Your task to perform on an android device: Search for razer blackwidow on newegg.com, select the first entry, add it to the cart, then select checkout. Image 0: 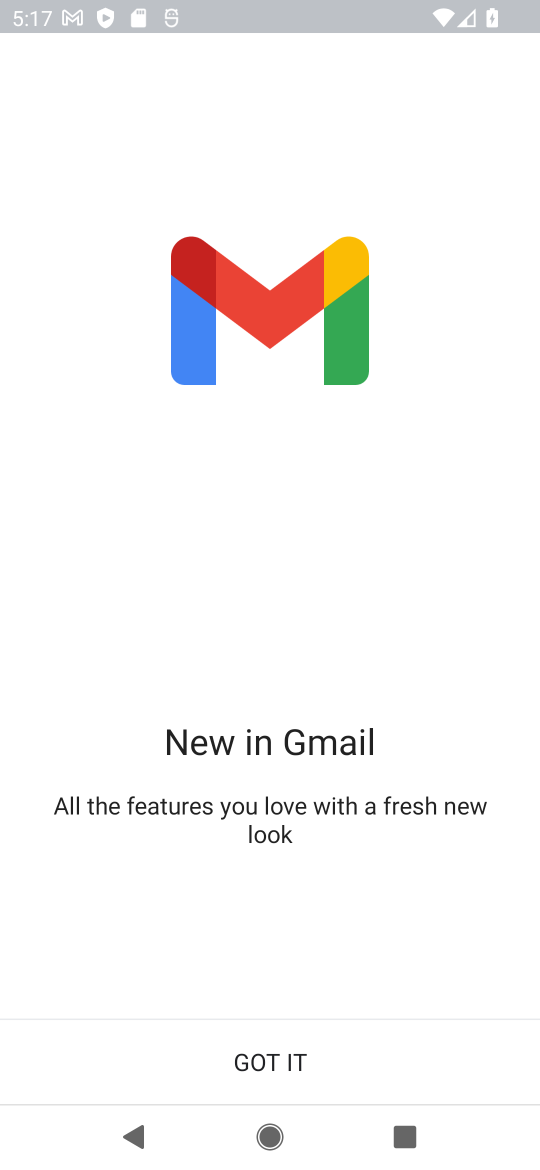
Step 0: press home button
Your task to perform on an android device: Search for razer blackwidow on newegg.com, select the first entry, add it to the cart, then select checkout. Image 1: 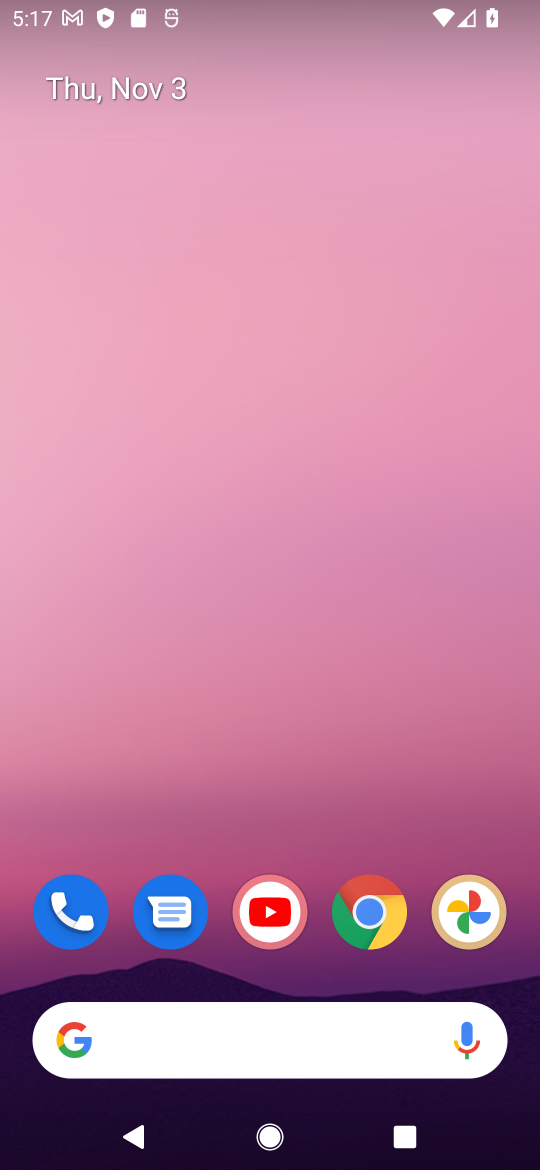
Step 1: click (370, 897)
Your task to perform on an android device: Search for razer blackwidow on newegg.com, select the first entry, add it to the cart, then select checkout. Image 2: 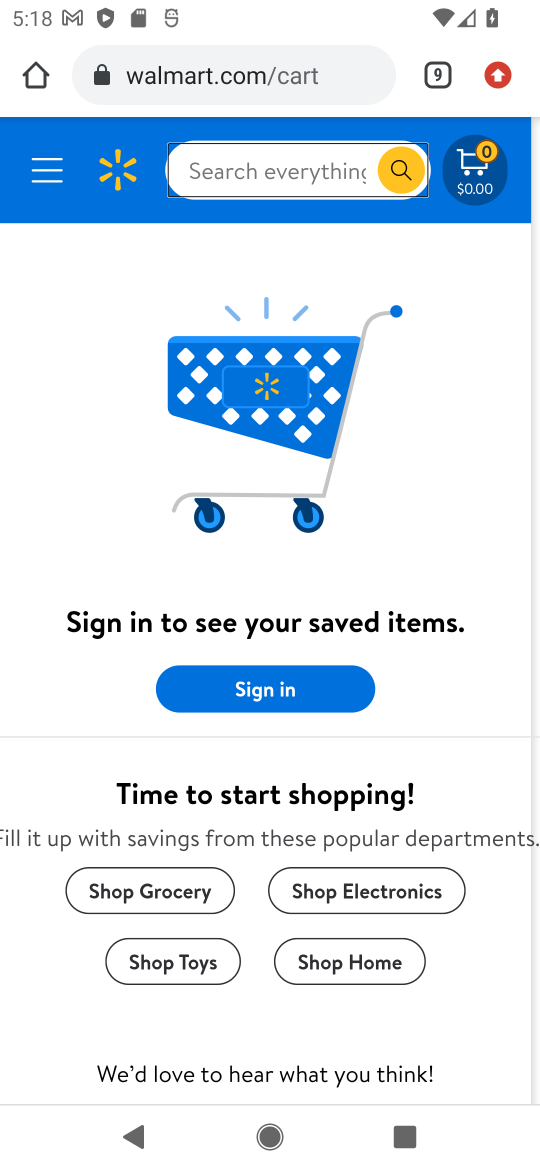
Step 2: click (436, 80)
Your task to perform on an android device: Search for razer blackwidow on newegg.com, select the first entry, add it to the cart, then select checkout. Image 3: 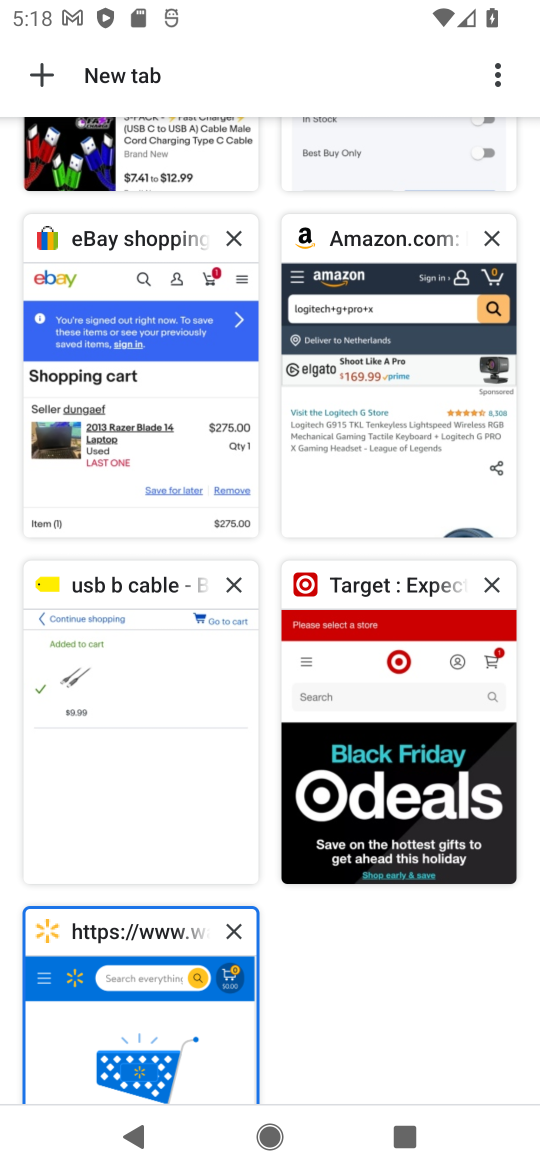
Step 3: drag from (342, 228) to (352, 1076)
Your task to perform on an android device: Search for razer blackwidow on newegg.com, select the first entry, add it to the cart, then select checkout. Image 4: 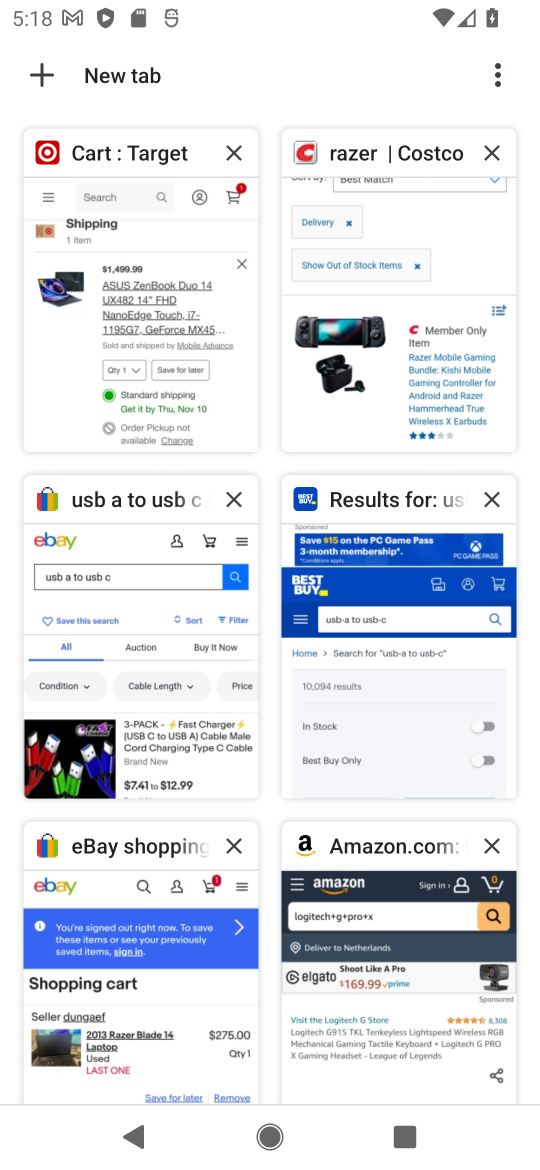
Step 4: drag from (297, 561) to (297, 1159)
Your task to perform on an android device: Search for razer blackwidow on newegg.com, select the first entry, add it to the cart, then select checkout. Image 5: 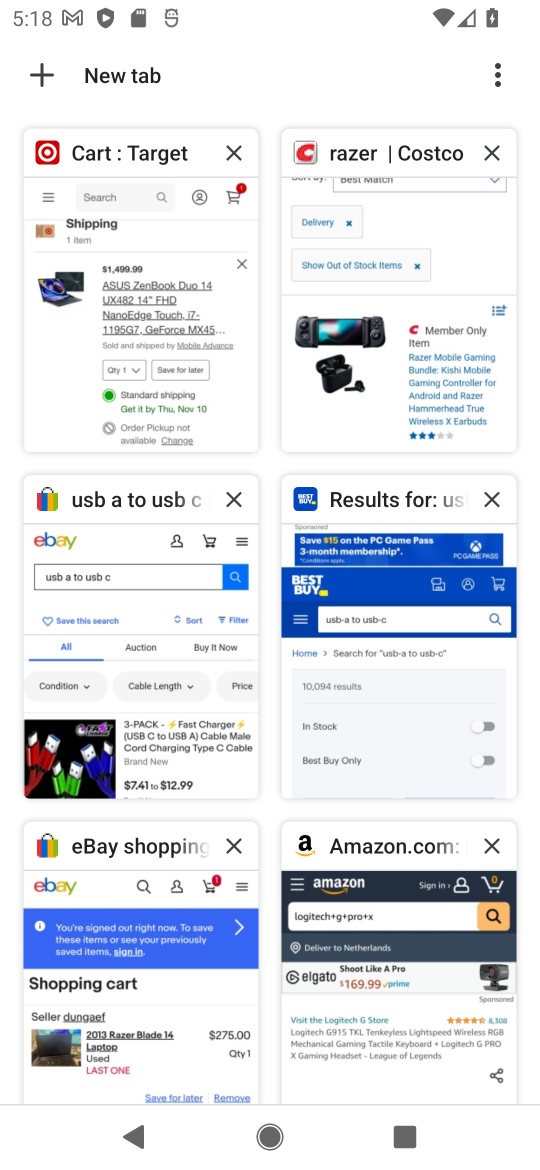
Step 5: click (45, 75)
Your task to perform on an android device: Search for razer blackwidow on newegg.com, select the first entry, add it to the cart, then select checkout. Image 6: 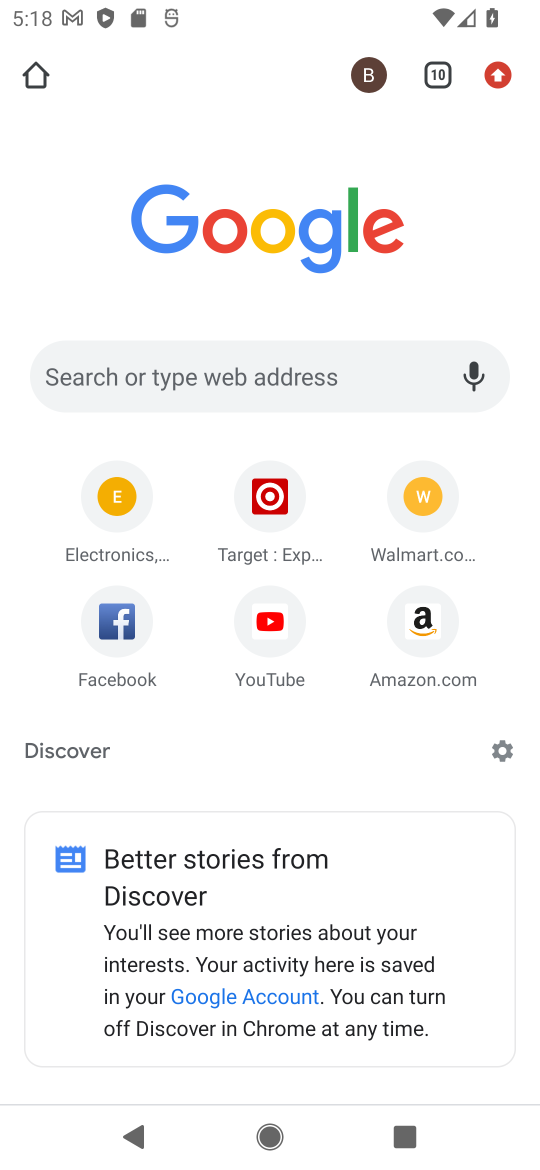
Step 6: click (180, 376)
Your task to perform on an android device: Search for razer blackwidow on newegg.com, select the first entry, add it to the cart, then select checkout. Image 7: 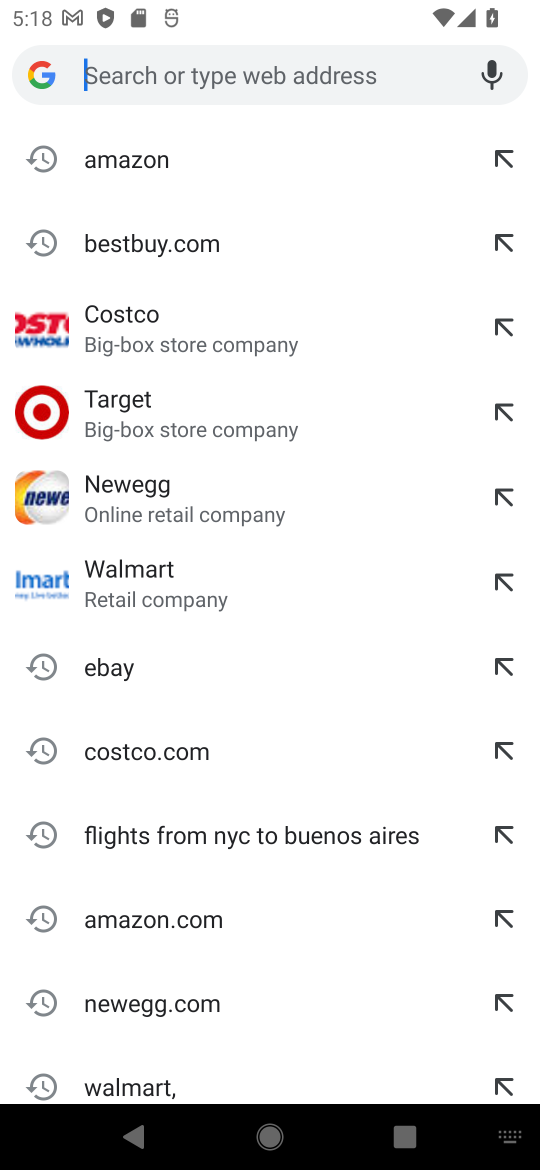
Step 7: type "newegg"
Your task to perform on an android device: Search for razer blackwidow on newegg.com, select the first entry, add it to the cart, then select checkout. Image 8: 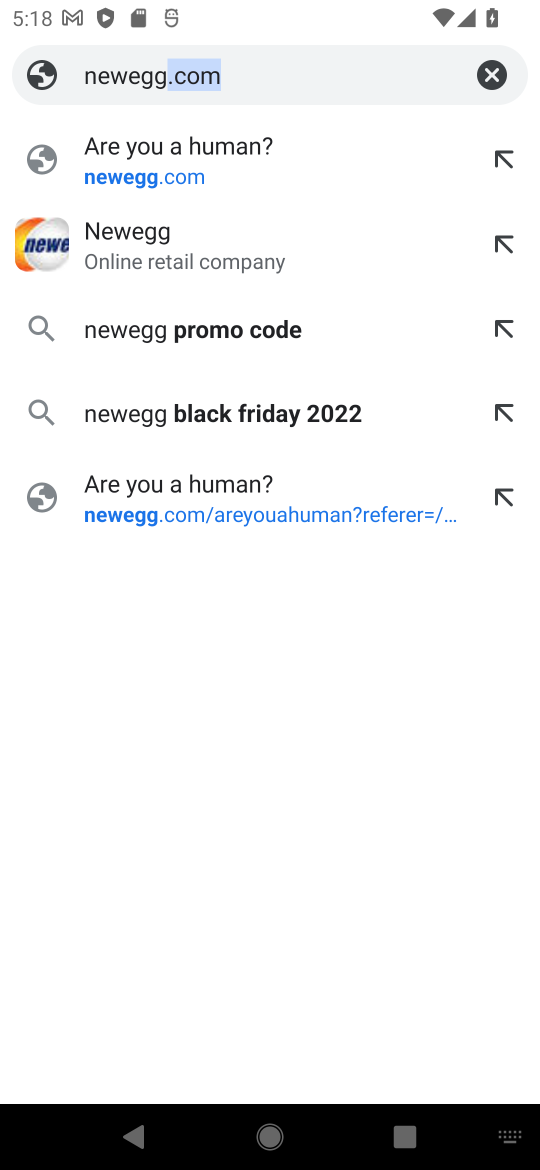
Step 8: click (157, 242)
Your task to perform on an android device: Search for razer blackwidow on newegg.com, select the first entry, add it to the cart, then select checkout. Image 9: 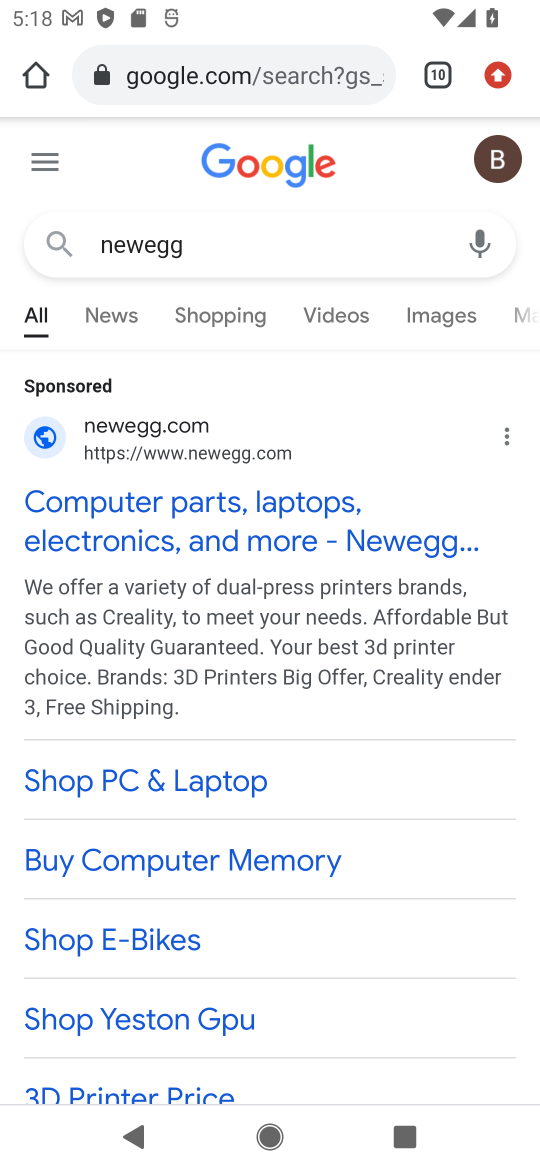
Step 9: drag from (286, 1037) to (353, 455)
Your task to perform on an android device: Search for razer blackwidow on newegg.com, select the first entry, add it to the cart, then select checkout. Image 10: 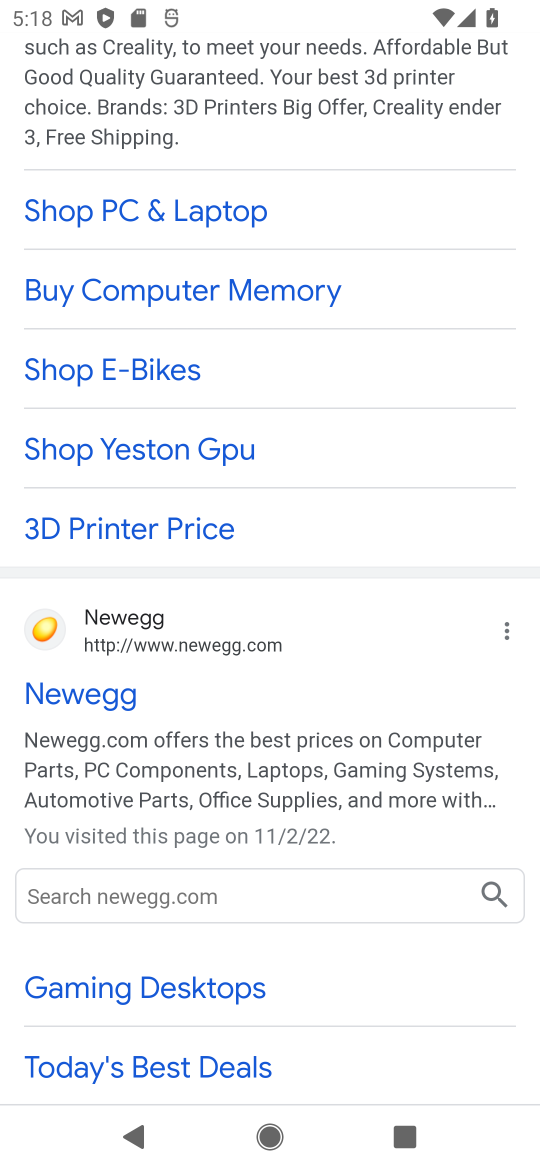
Step 10: click (100, 676)
Your task to perform on an android device: Search for razer blackwidow on newegg.com, select the first entry, add it to the cart, then select checkout. Image 11: 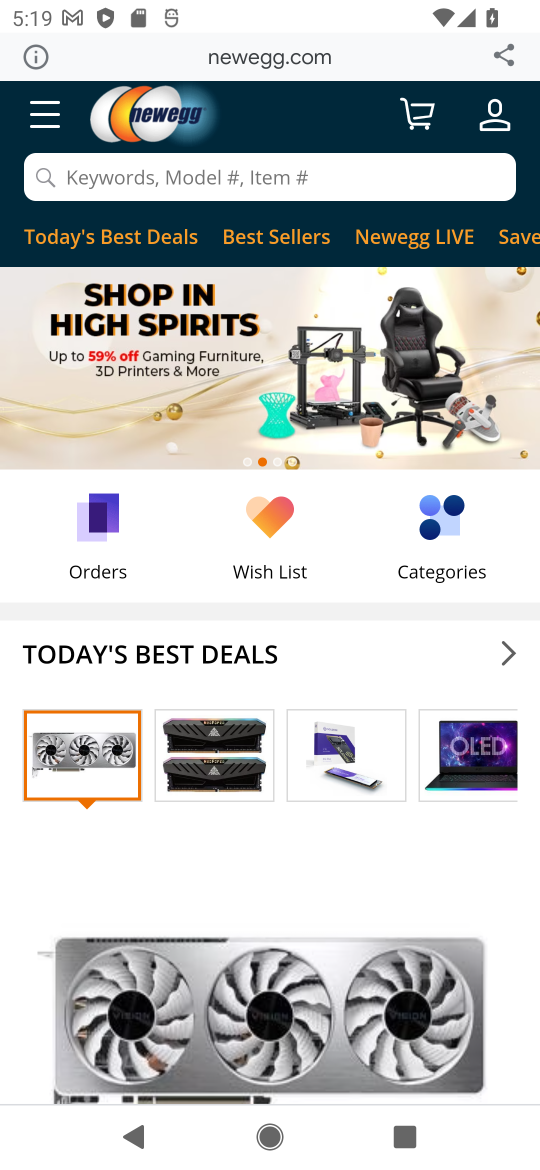
Step 11: click (224, 193)
Your task to perform on an android device: Search for razer blackwidow on newegg.com, select the first entry, add it to the cart, then select checkout. Image 12: 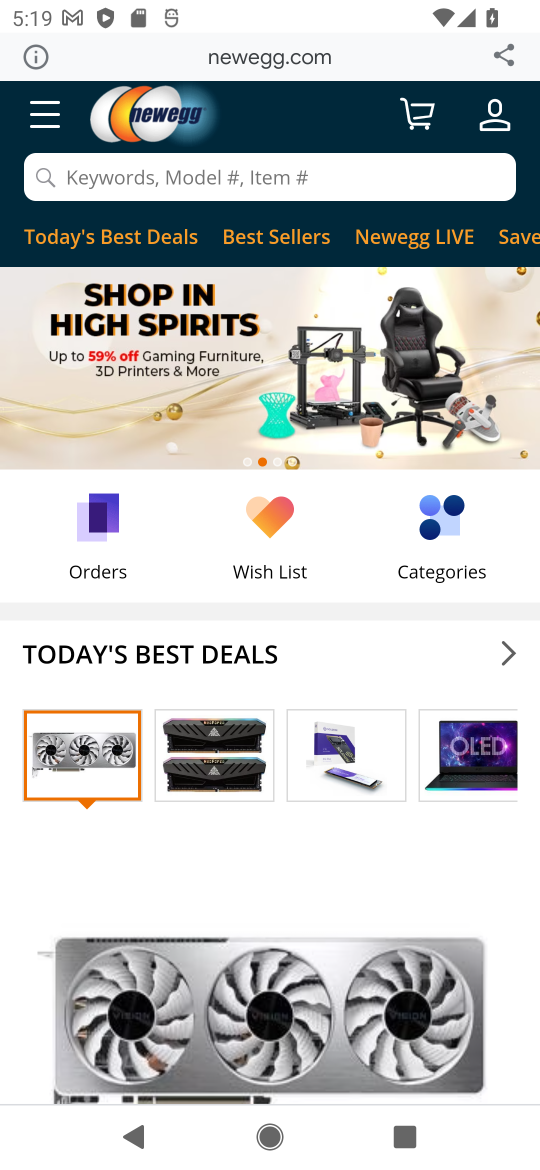
Step 12: click (223, 173)
Your task to perform on an android device: Search for razer blackwidow on newegg.com, select the first entry, add it to the cart, then select checkout. Image 13: 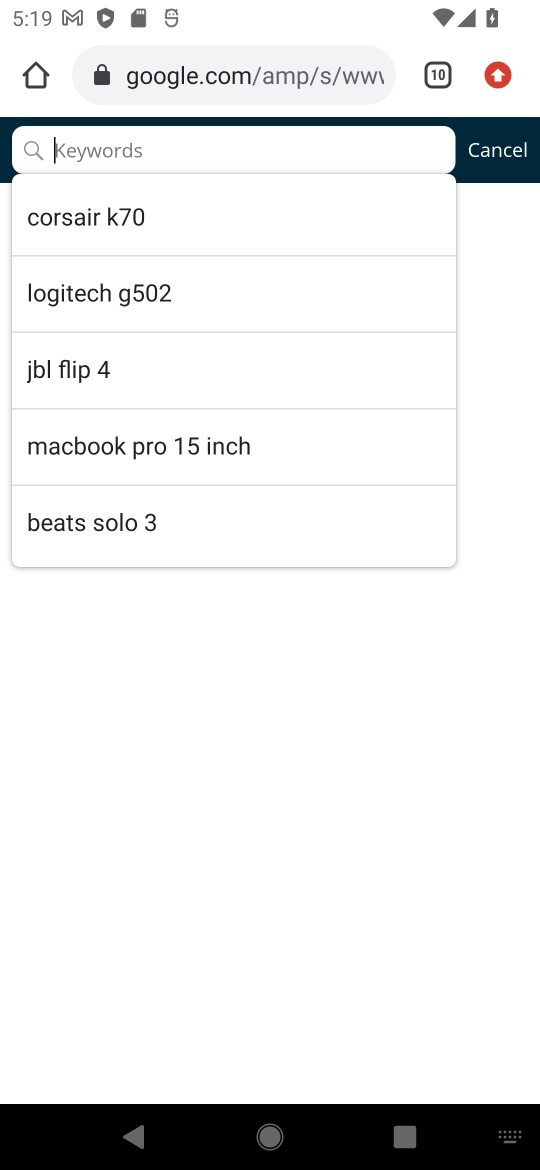
Step 13: type "razer blackwidow"
Your task to perform on an android device: Search for razer blackwidow on newegg.com, select the first entry, add it to the cart, then select checkout. Image 14: 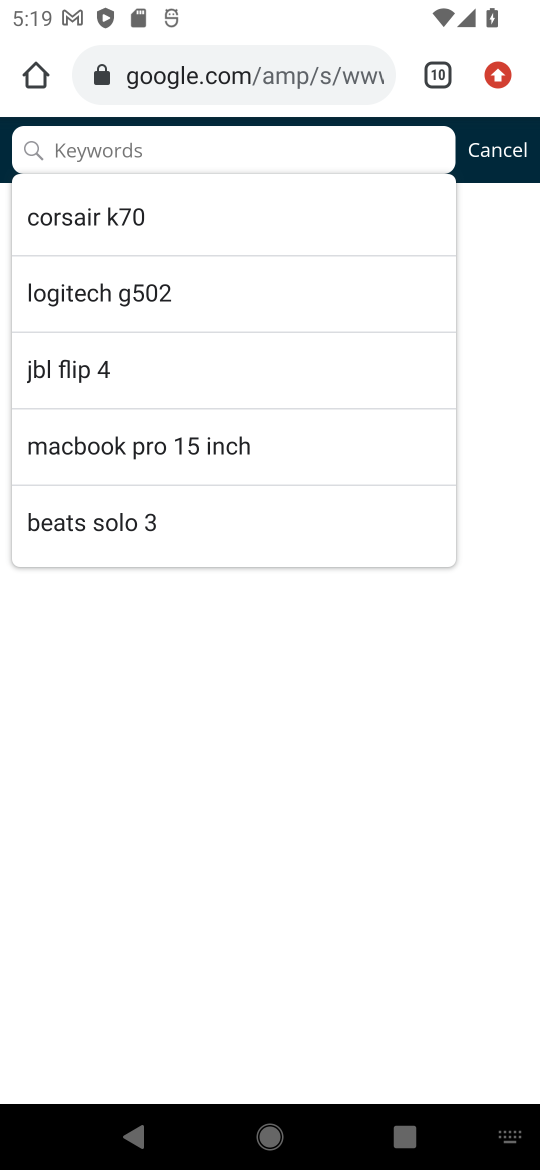
Step 14: click (283, 963)
Your task to perform on an android device: Search for razer blackwidow on newegg.com, select the first entry, add it to the cart, then select checkout. Image 15: 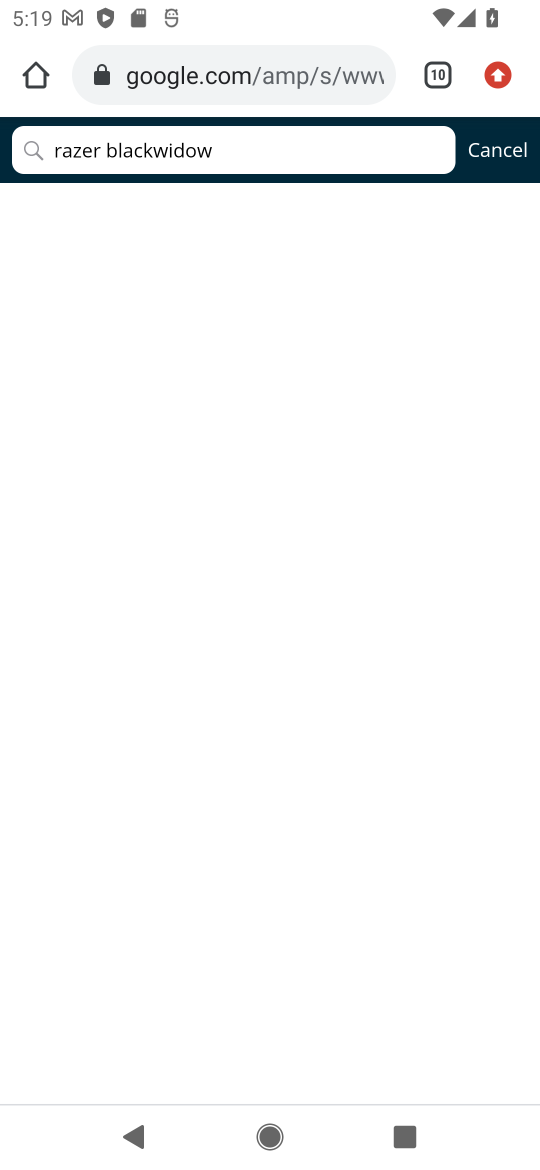
Step 15: task complete